Your task to perform on an android device: turn on sleep mode Image 0: 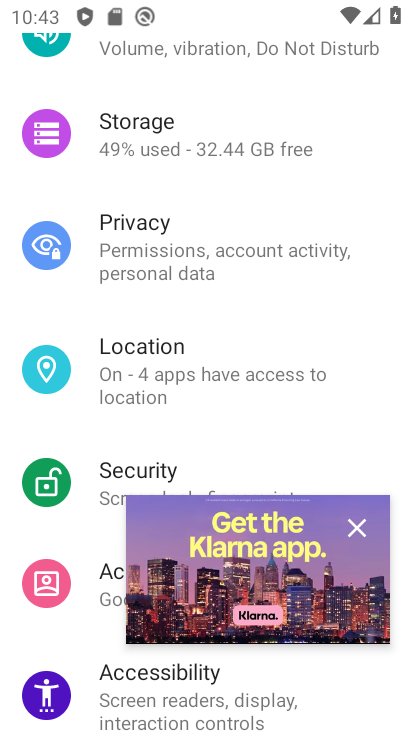
Step 0: click (356, 525)
Your task to perform on an android device: turn on sleep mode Image 1: 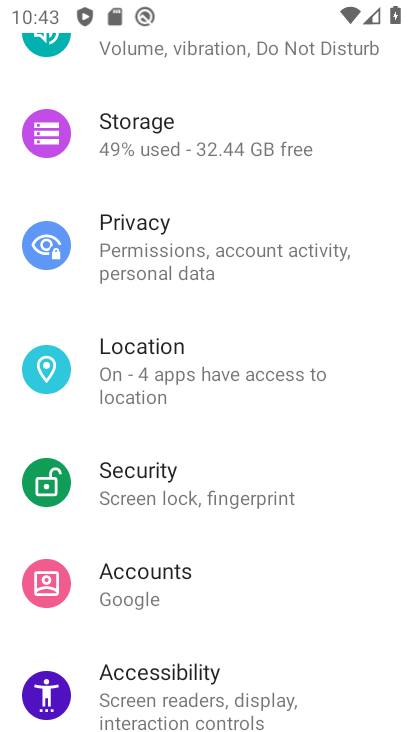
Step 1: drag from (287, 198) to (324, 690)
Your task to perform on an android device: turn on sleep mode Image 2: 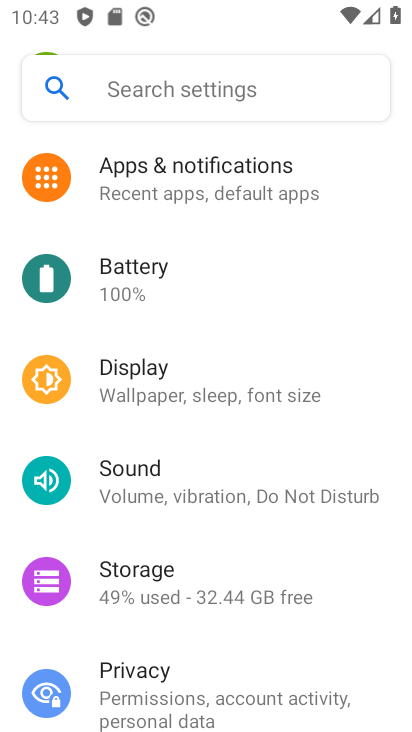
Step 2: click (198, 489)
Your task to perform on an android device: turn on sleep mode Image 3: 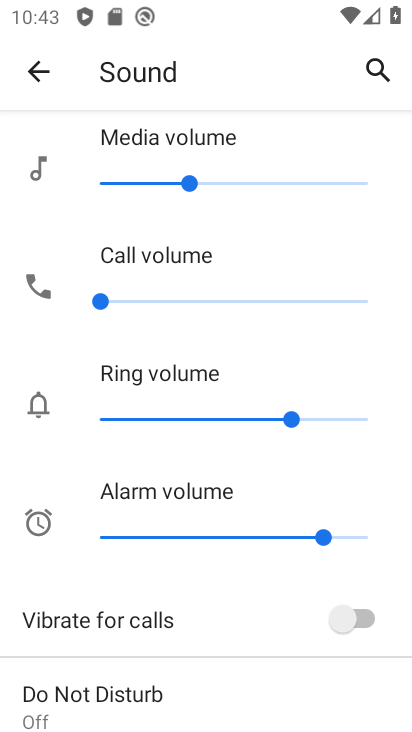
Step 3: task complete